Your task to perform on an android device: Open the stopwatch Image 0: 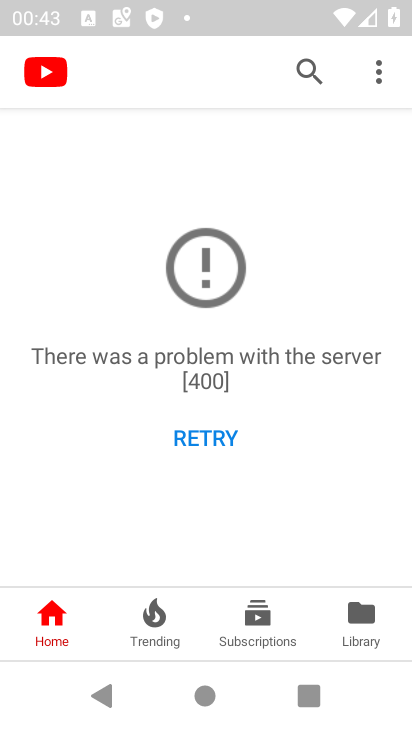
Step 0: press home button
Your task to perform on an android device: Open the stopwatch Image 1: 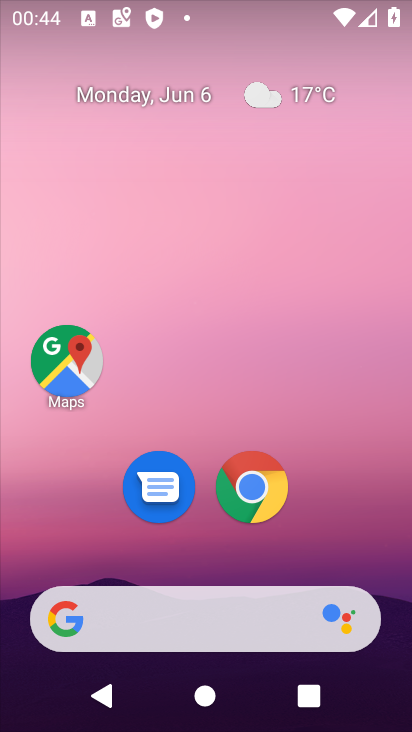
Step 1: drag from (402, 627) to (323, 72)
Your task to perform on an android device: Open the stopwatch Image 2: 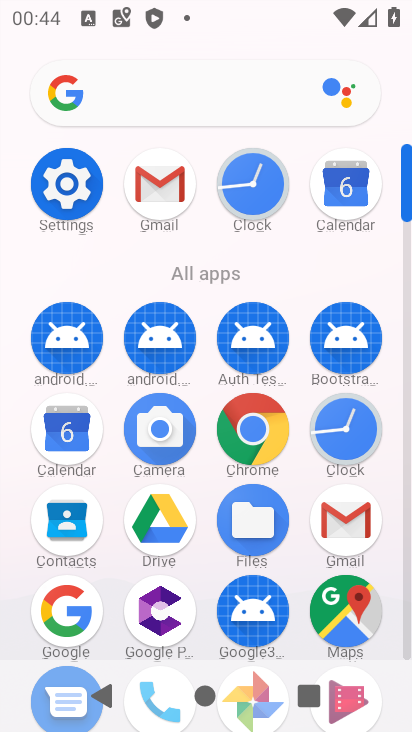
Step 2: click (408, 637)
Your task to perform on an android device: Open the stopwatch Image 3: 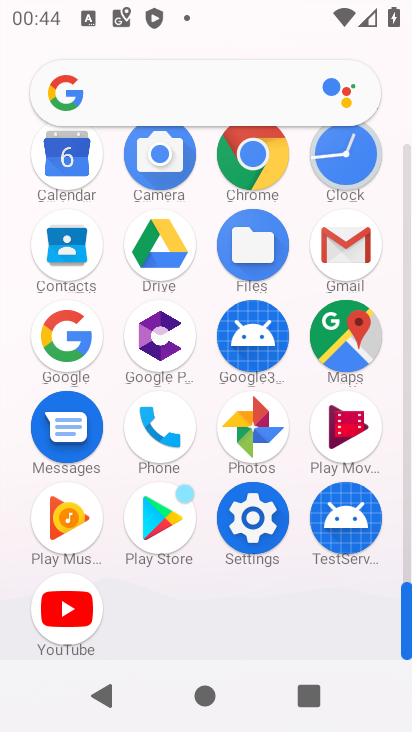
Step 3: click (349, 155)
Your task to perform on an android device: Open the stopwatch Image 4: 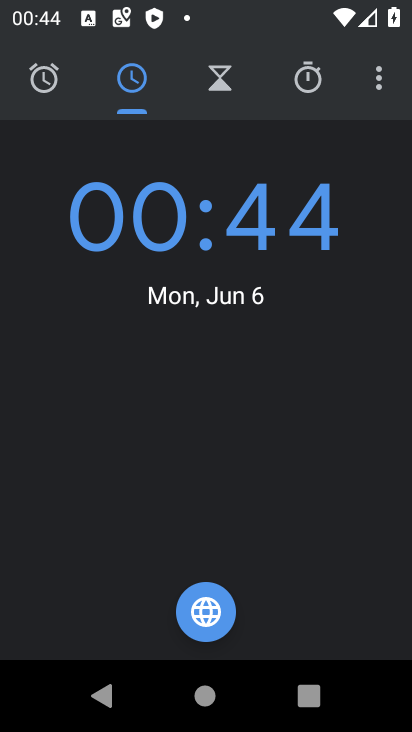
Step 4: click (305, 76)
Your task to perform on an android device: Open the stopwatch Image 5: 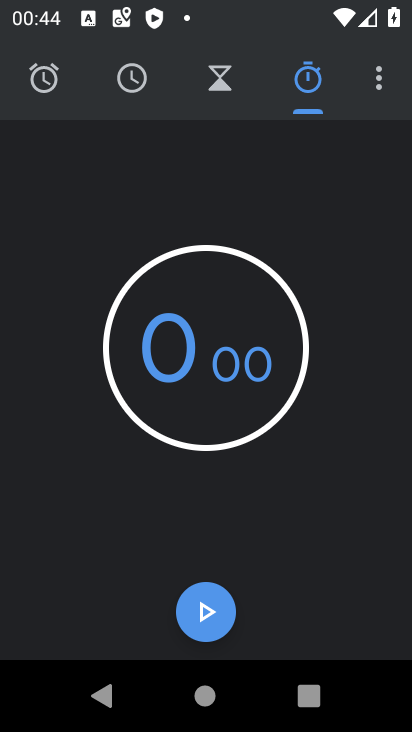
Step 5: task complete